Your task to perform on an android device: turn on priority inbox in the gmail app Image 0: 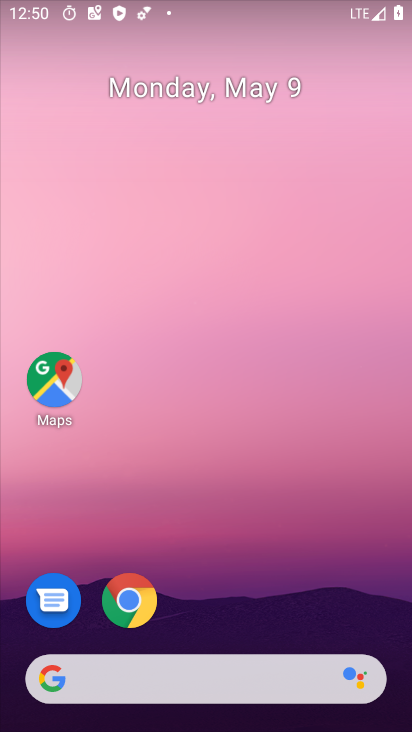
Step 0: drag from (212, 638) to (221, 338)
Your task to perform on an android device: turn on priority inbox in the gmail app Image 1: 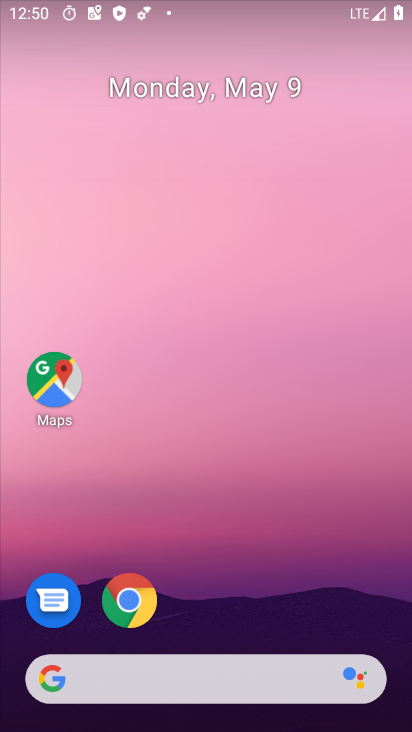
Step 1: drag from (245, 556) to (214, 228)
Your task to perform on an android device: turn on priority inbox in the gmail app Image 2: 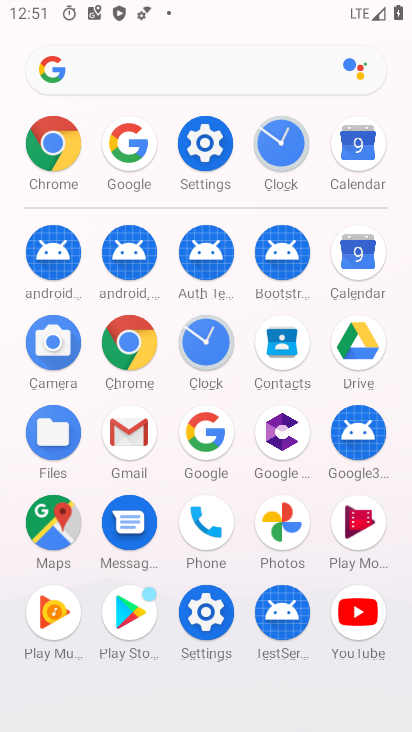
Step 2: click (129, 437)
Your task to perform on an android device: turn on priority inbox in the gmail app Image 3: 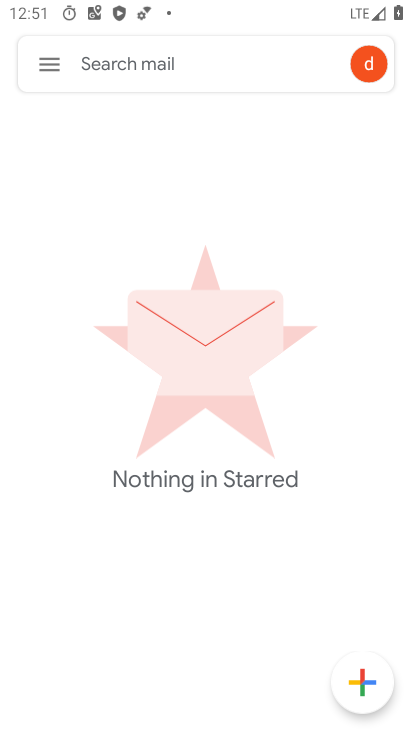
Step 3: click (57, 69)
Your task to perform on an android device: turn on priority inbox in the gmail app Image 4: 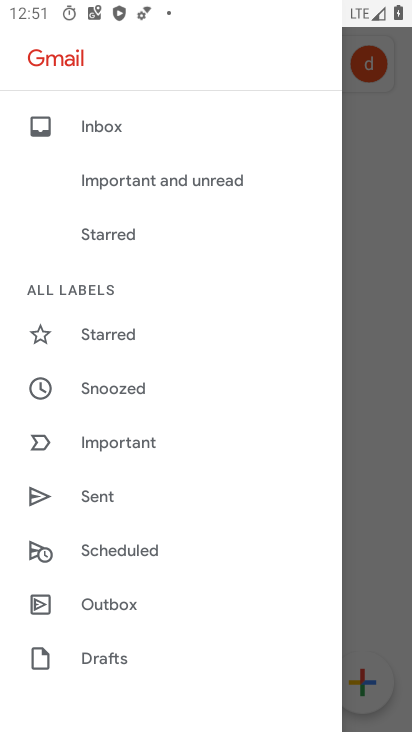
Step 4: drag from (132, 595) to (134, 245)
Your task to perform on an android device: turn on priority inbox in the gmail app Image 5: 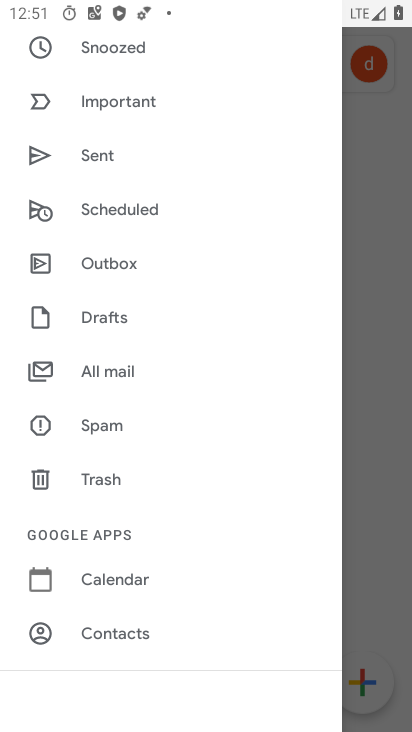
Step 5: drag from (121, 586) to (116, 320)
Your task to perform on an android device: turn on priority inbox in the gmail app Image 6: 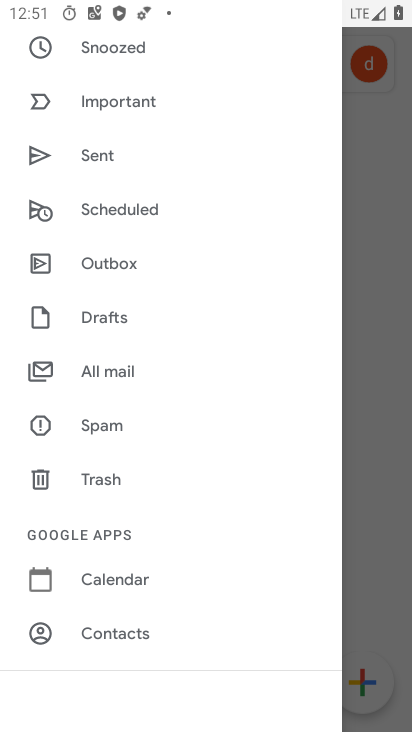
Step 6: drag from (126, 508) to (120, 287)
Your task to perform on an android device: turn on priority inbox in the gmail app Image 7: 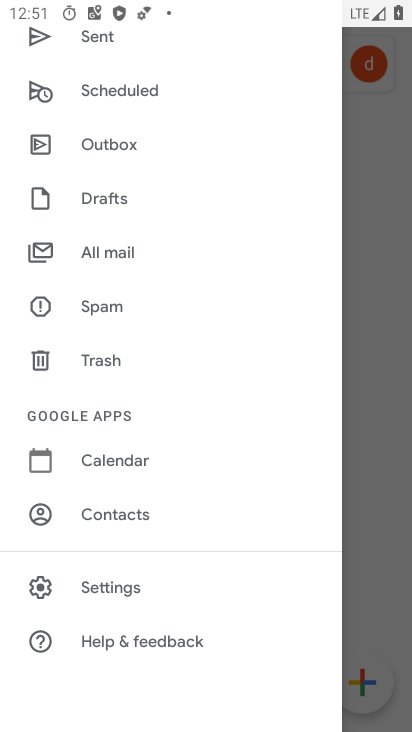
Step 7: click (127, 581)
Your task to perform on an android device: turn on priority inbox in the gmail app Image 8: 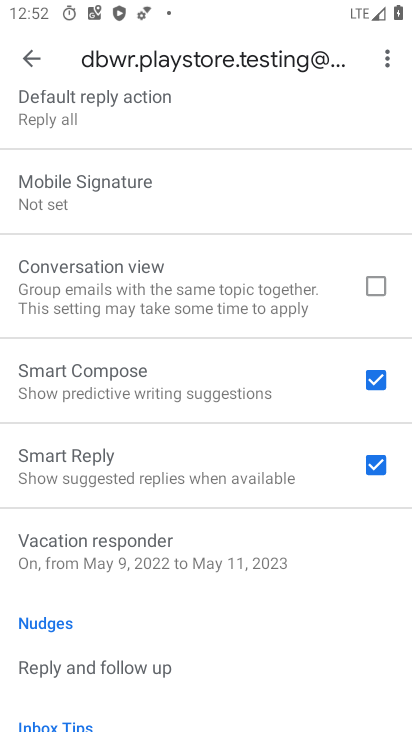
Step 8: drag from (149, 293) to (190, 711)
Your task to perform on an android device: turn on priority inbox in the gmail app Image 9: 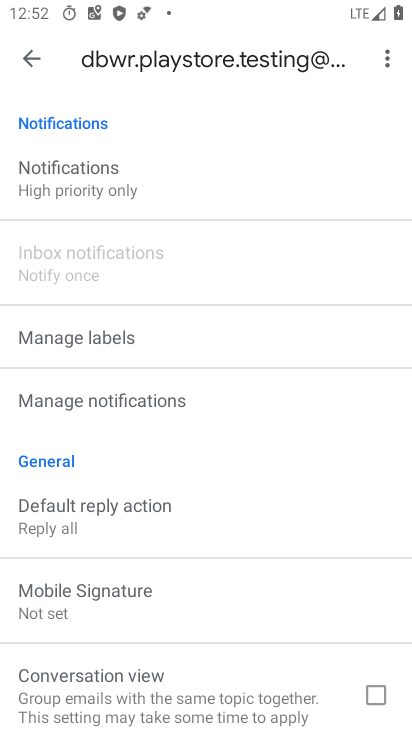
Step 9: click (134, 203)
Your task to perform on an android device: turn on priority inbox in the gmail app Image 10: 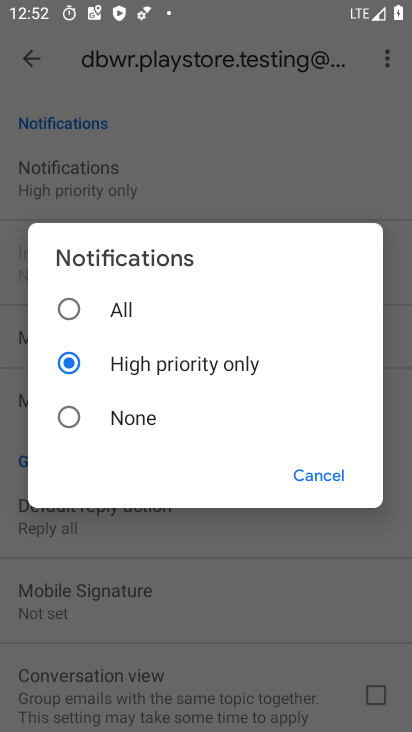
Step 10: click (300, 483)
Your task to perform on an android device: turn on priority inbox in the gmail app Image 11: 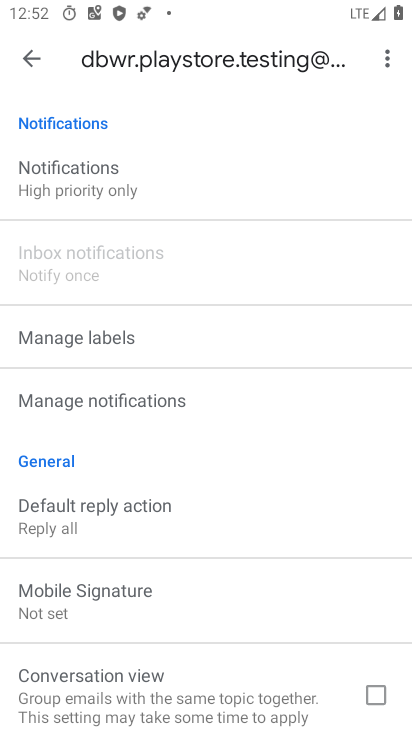
Step 11: click (115, 399)
Your task to perform on an android device: turn on priority inbox in the gmail app Image 12: 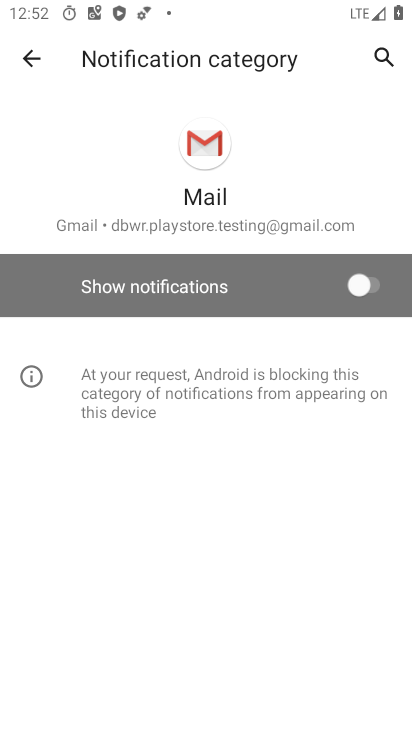
Step 12: click (29, 66)
Your task to perform on an android device: turn on priority inbox in the gmail app Image 13: 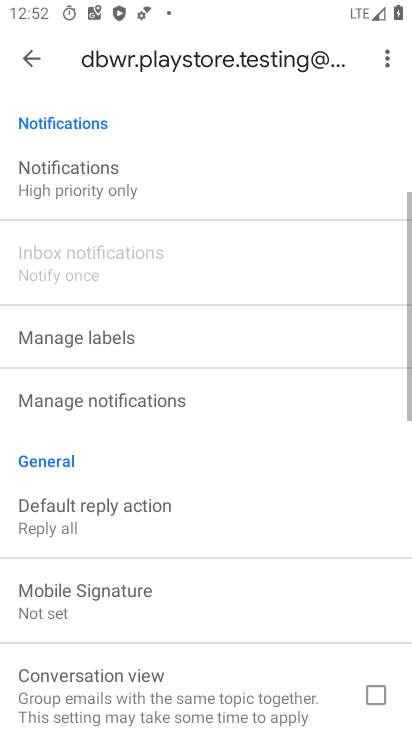
Step 13: drag from (158, 534) to (179, 310)
Your task to perform on an android device: turn on priority inbox in the gmail app Image 14: 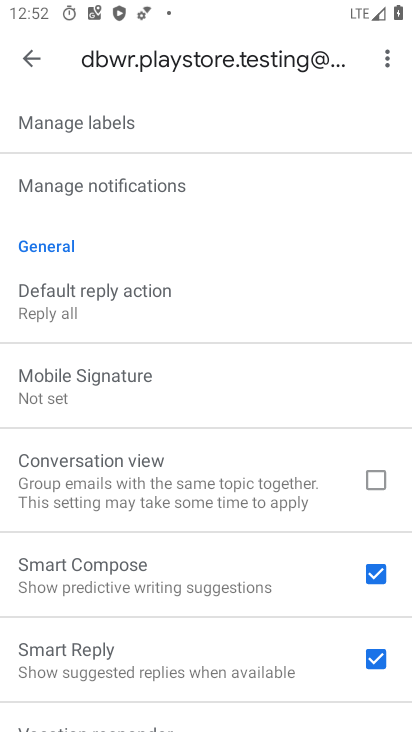
Step 14: drag from (173, 238) to (193, 564)
Your task to perform on an android device: turn on priority inbox in the gmail app Image 15: 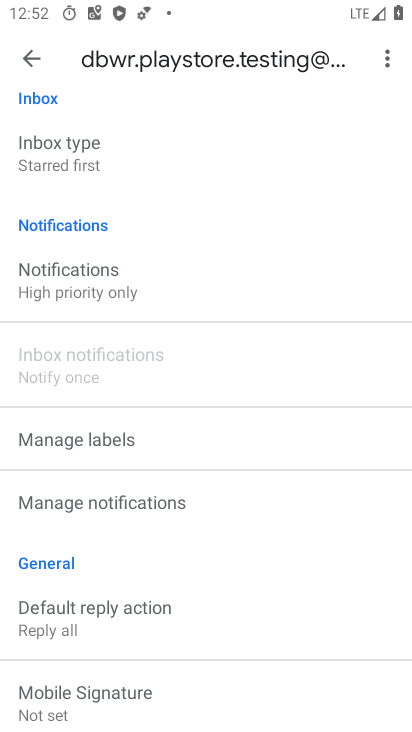
Step 15: click (119, 360)
Your task to perform on an android device: turn on priority inbox in the gmail app Image 16: 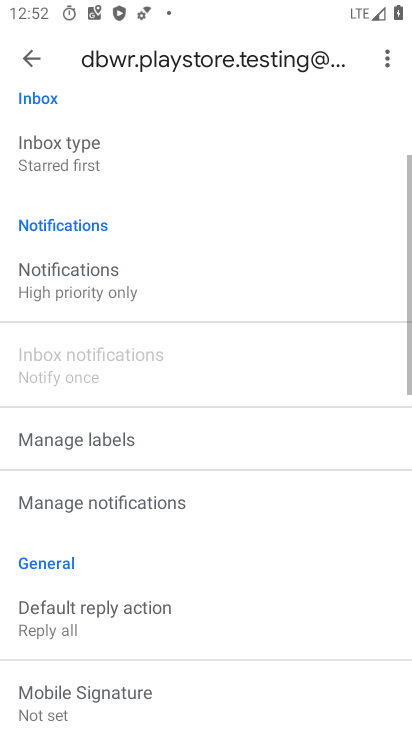
Step 16: click (125, 166)
Your task to perform on an android device: turn on priority inbox in the gmail app Image 17: 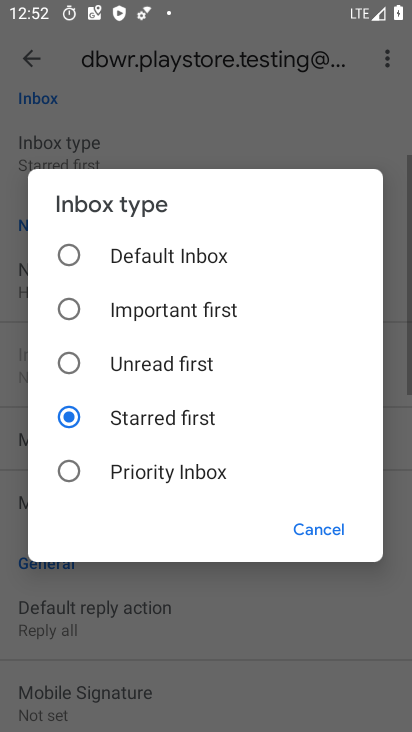
Step 17: click (173, 470)
Your task to perform on an android device: turn on priority inbox in the gmail app Image 18: 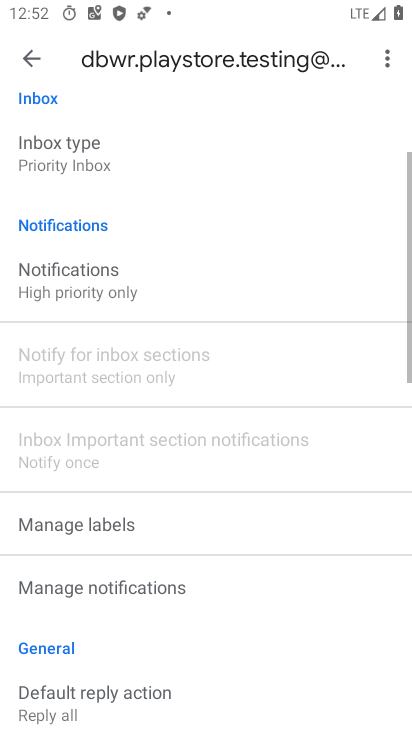
Step 18: task complete